Your task to perform on an android device: check android version Image 0: 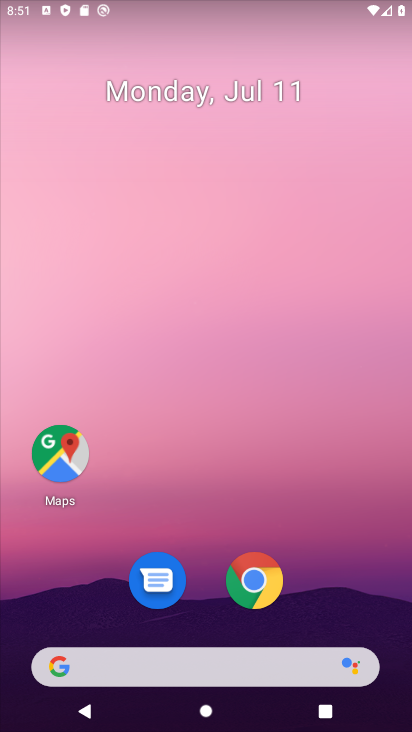
Step 0: drag from (306, 565) to (263, 30)
Your task to perform on an android device: check android version Image 1: 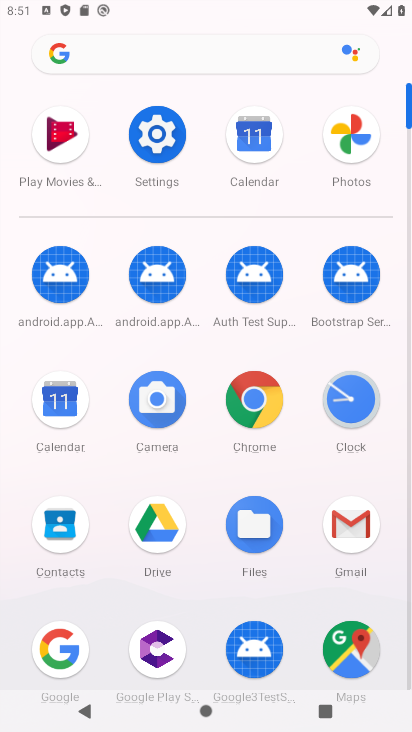
Step 1: click (159, 139)
Your task to perform on an android device: check android version Image 2: 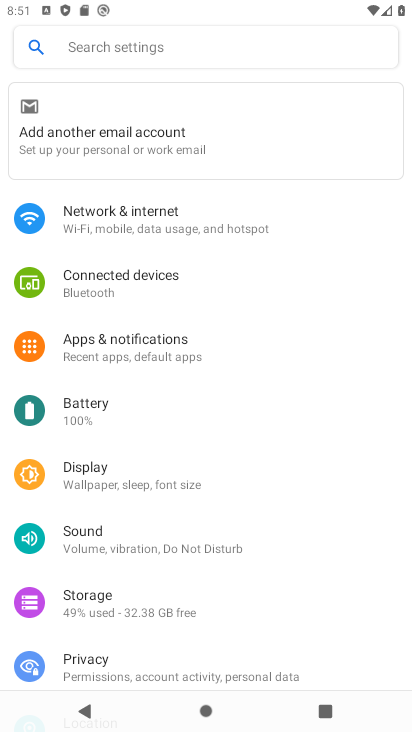
Step 2: drag from (180, 437) to (186, 110)
Your task to perform on an android device: check android version Image 3: 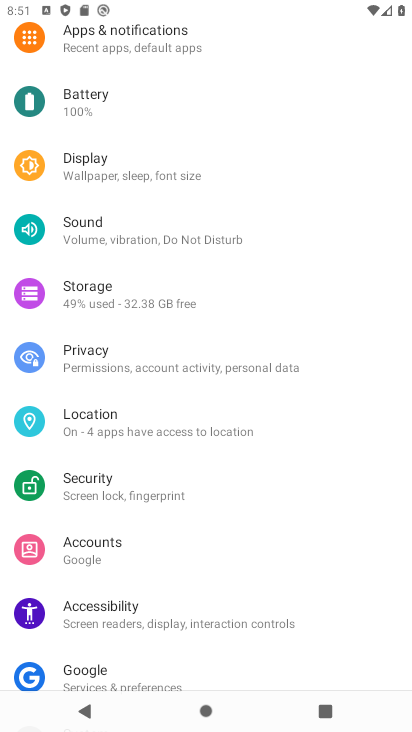
Step 3: drag from (231, 564) to (258, 142)
Your task to perform on an android device: check android version Image 4: 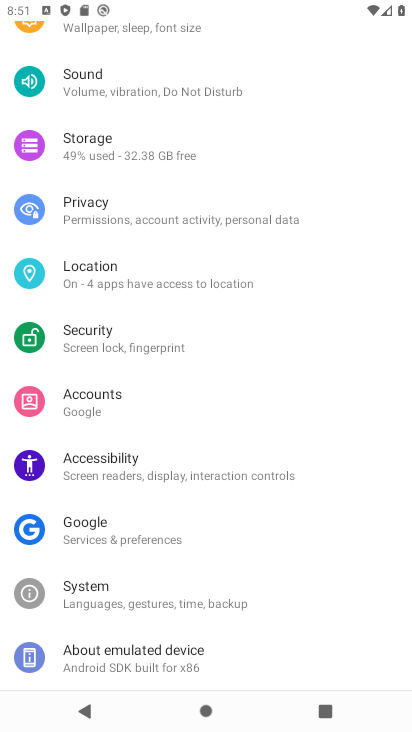
Step 4: drag from (239, 310) to (233, 203)
Your task to perform on an android device: check android version Image 5: 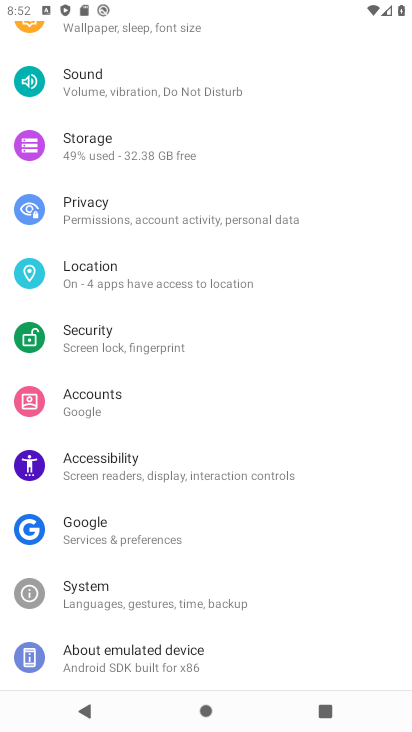
Step 5: click (149, 658)
Your task to perform on an android device: check android version Image 6: 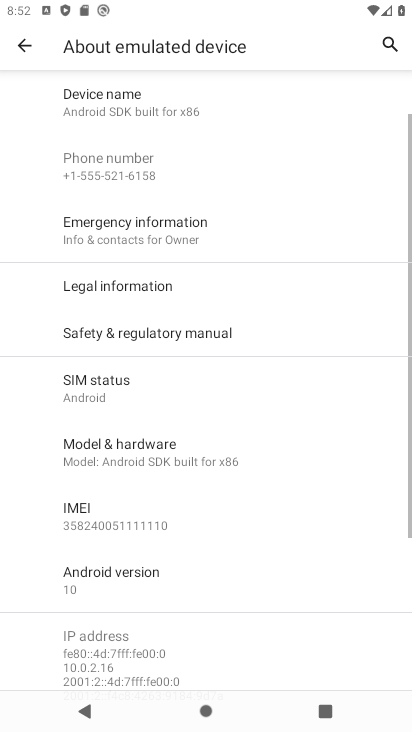
Step 6: click (160, 652)
Your task to perform on an android device: check android version Image 7: 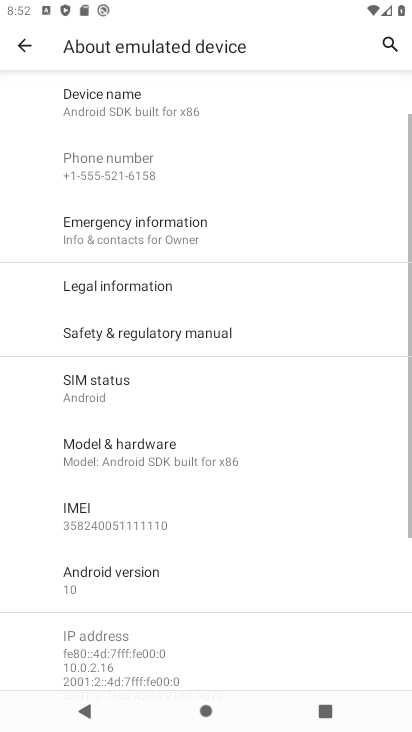
Step 7: click (194, 581)
Your task to perform on an android device: check android version Image 8: 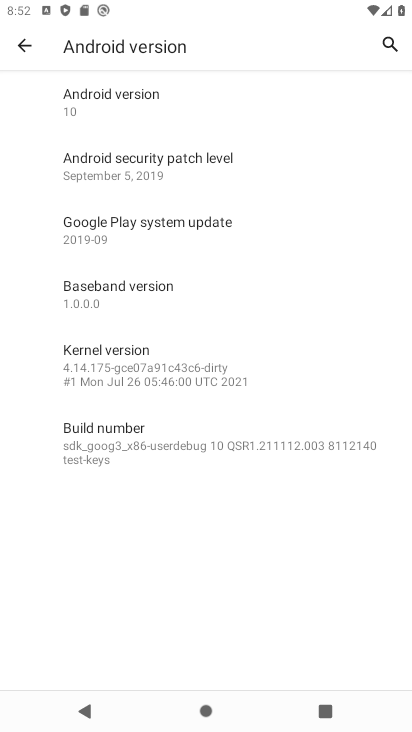
Step 8: task complete